Your task to perform on an android device: Show me the alarms in the clock app Image 0: 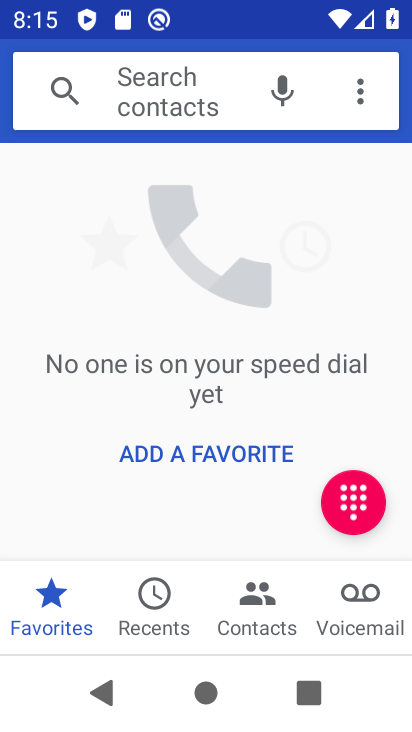
Step 0: press home button
Your task to perform on an android device: Show me the alarms in the clock app Image 1: 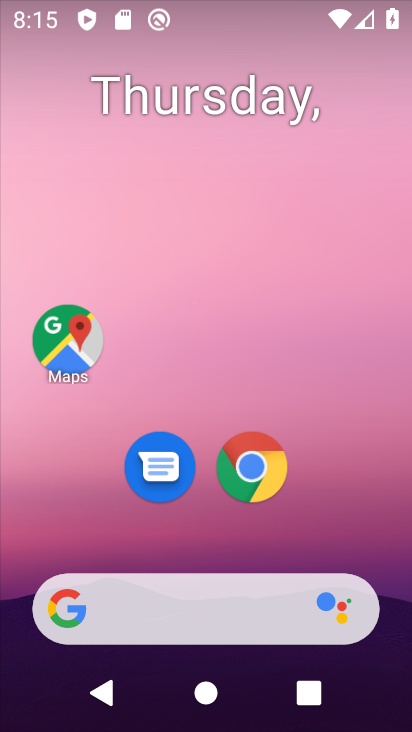
Step 1: drag from (333, 511) to (170, 32)
Your task to perform on an android device: Show me the alarms in the clock app Image 2: 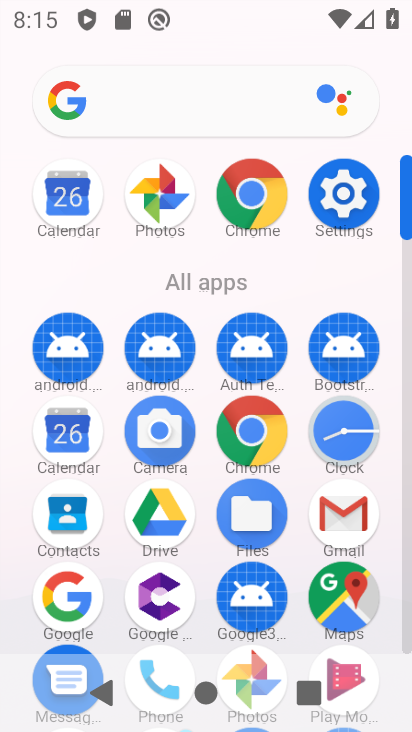
Step 2: click (334, 435)
Your task to perform on an android device: Show me the alarms in the clock app Image 3: 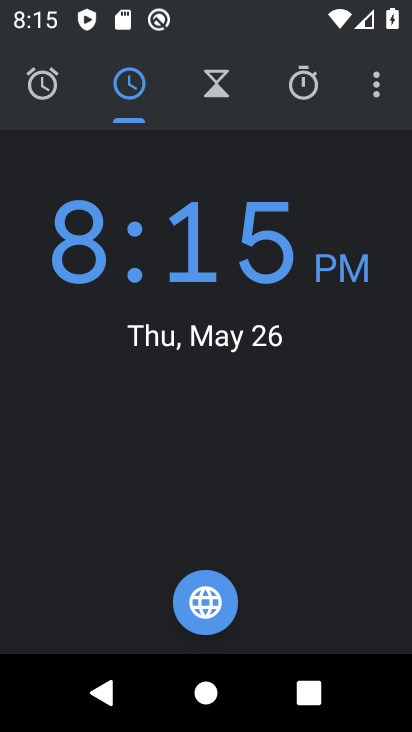
Step 3: click (46, 94)
Your task to perform on an android device: Show me the alarms in the clock app Image 4: 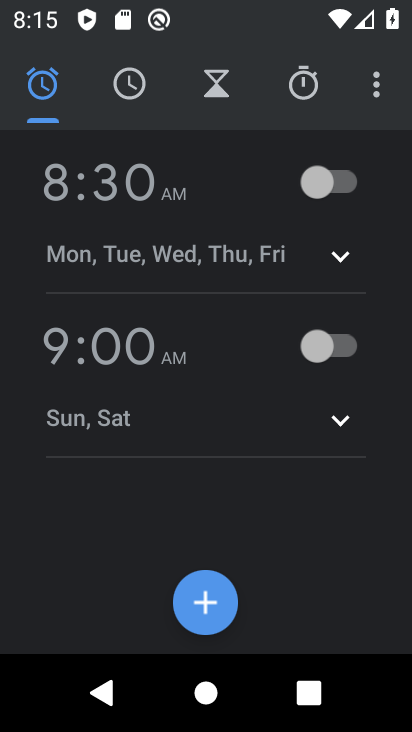
Step 4: task complete